Your task to perform on an android device: manage bookmarks in the chrome app Image 0: 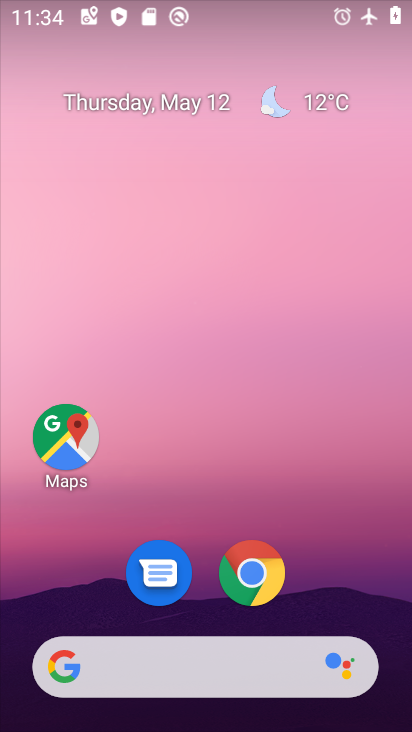
Step 0: click (257, 579)
Your task to perform on an android device: manage bookmarks in the chrome app Image 1: 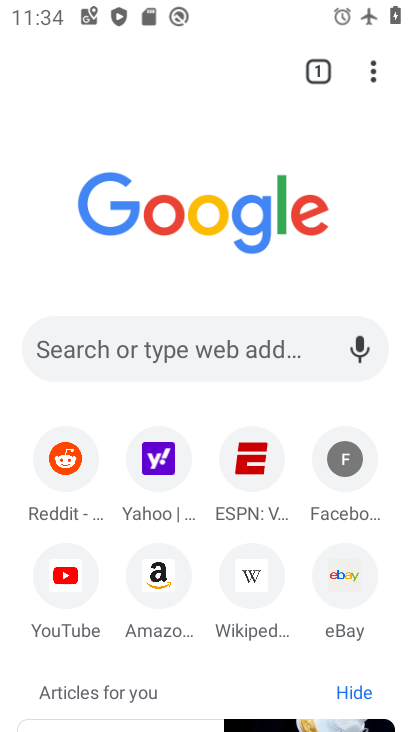
Step 1: click (372, 69)
Your task to perform on an android device: manage bookmarks in the chrome app Image 2: 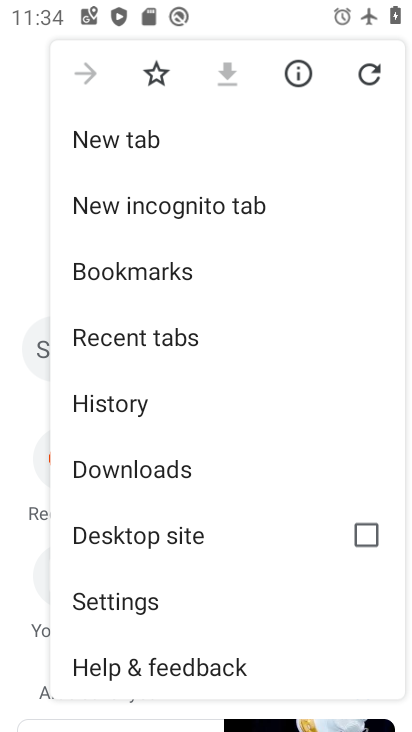
Step 2: click (167, 267)
Your task to perform on an android device: manage bookmarks in the chrome app Image 3: 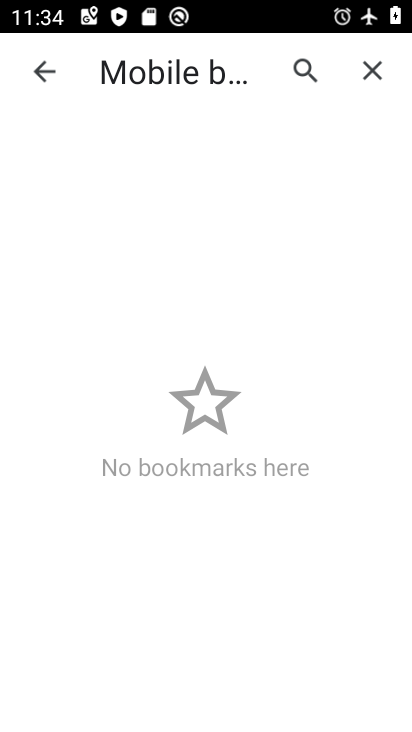
Step 3: task complete